Your task to perform on an android device: change alarm snooze length Image 0: 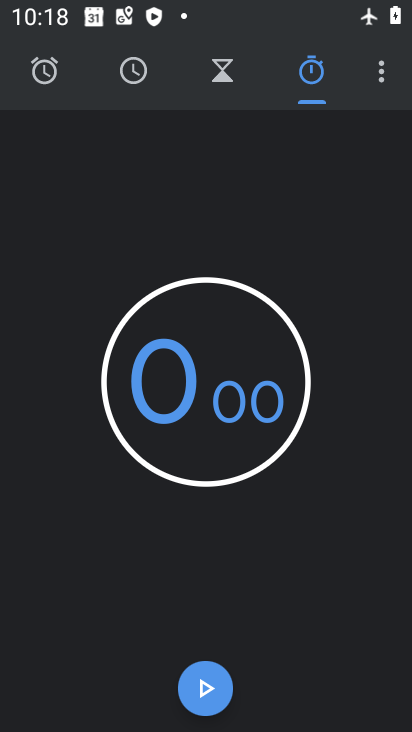
Step 0: click (379, 66)
Your task to perform on an android device: change alarm snooze length Image 1: 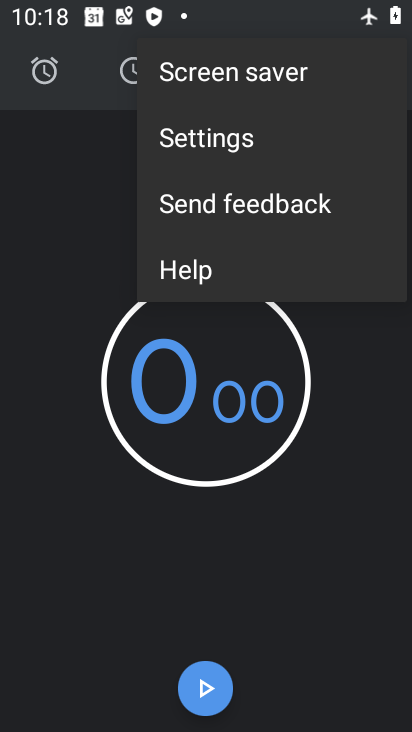
Step 1: click (222, 147)
Your task to perform on an android device: change alarm snooze length Image 2: 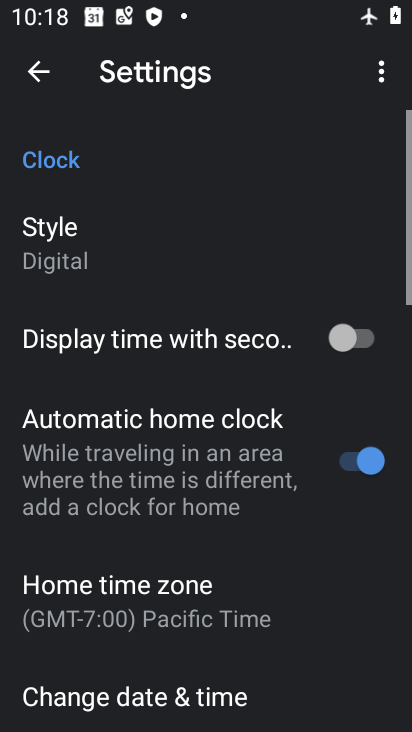
Step 2: drag from (207, 610) to (228, 305)
Your task to perform on an android device: change alarm snooze length Image 3: 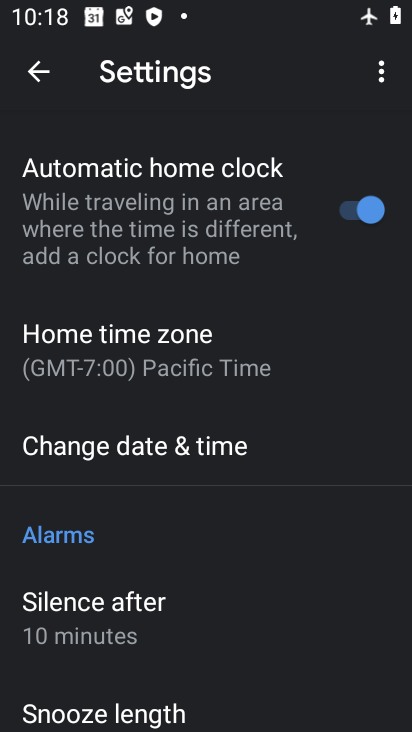
Step 3: drag from (144, 643) to (198, 411)
Your task to perform on an android device: change alarm snooze length Image 4: 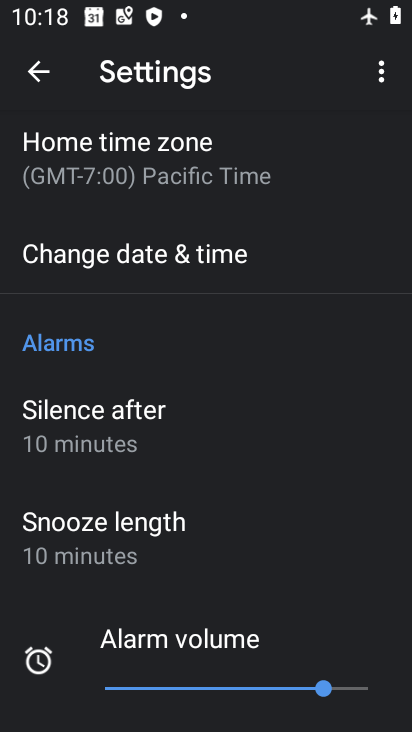
Step 4: click (178, 561)
Your task to perform on an android device: change alarm snooze length Image 5: 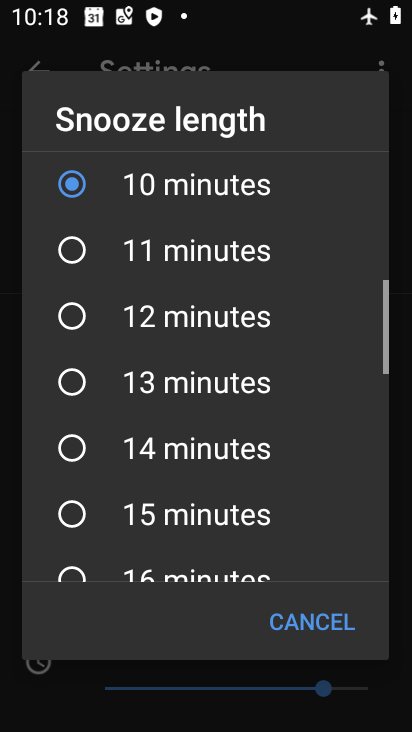
Step 5: click (157, 521)
Your task to perform on an android device: change alarm snooze length Image 6: 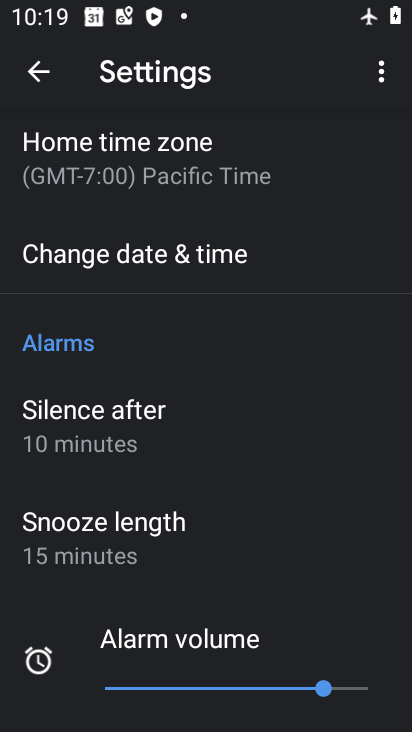
Step 6: task complete